Your task to perform on an android device: change timer sound Image 0: 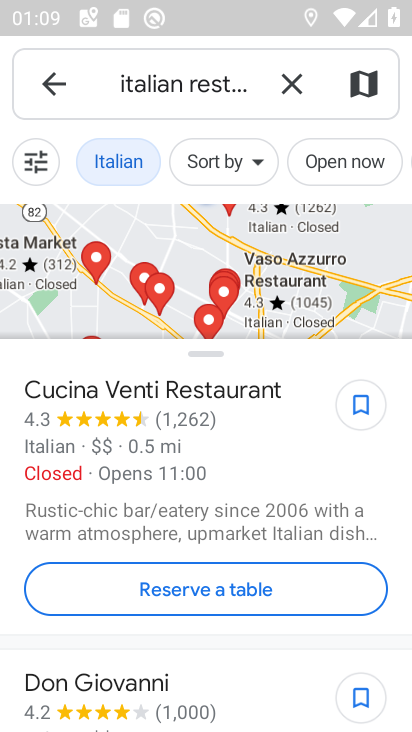
Step 0: press home button
Your task to perform on an android device: change timer sound Image 1: 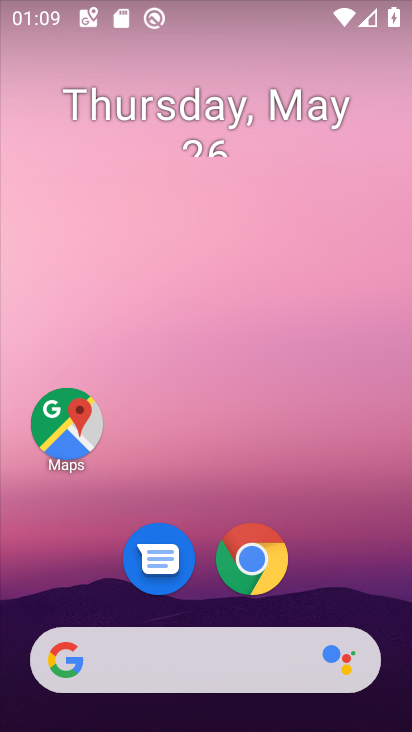
Step 1: drag from (333, 537) to (345, 154)
Your task to perform on an android device: change timer sound Image 2: 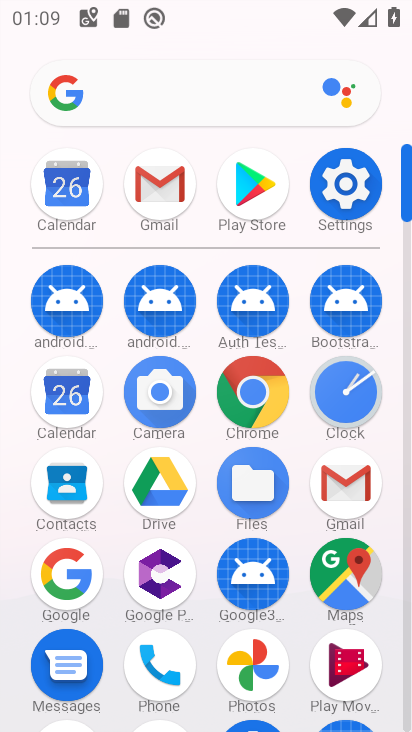
Step 2: click (361, 402)
Your task to perform on an android device: change timer sound Image 3: 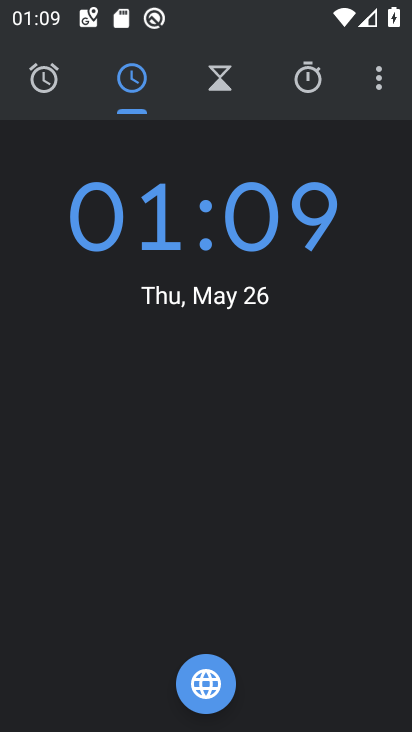
Step 3: click (381, 78)
Your task to perform on an android device: change timer sound Image 4: 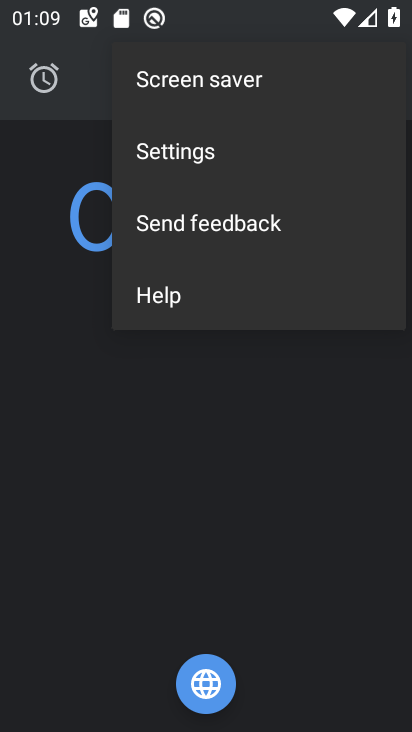
Step 4: click (221, 154)
Your task to perform on an android device: change timer sound Image 5: 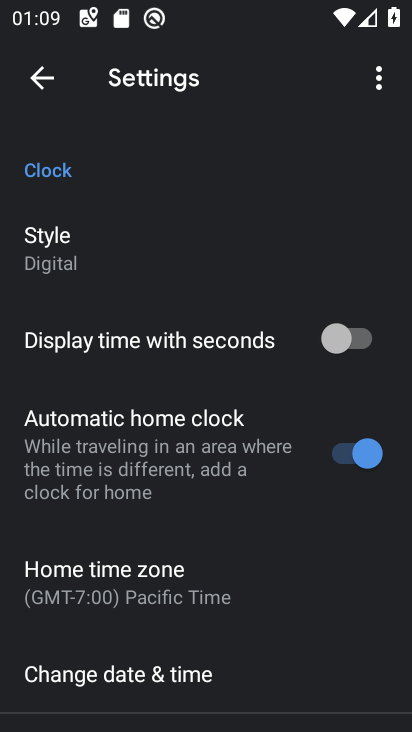
Step 5: drag from (312, 643) to (319, 241)
Your task to perform on an android device: change timer sound Image 6: 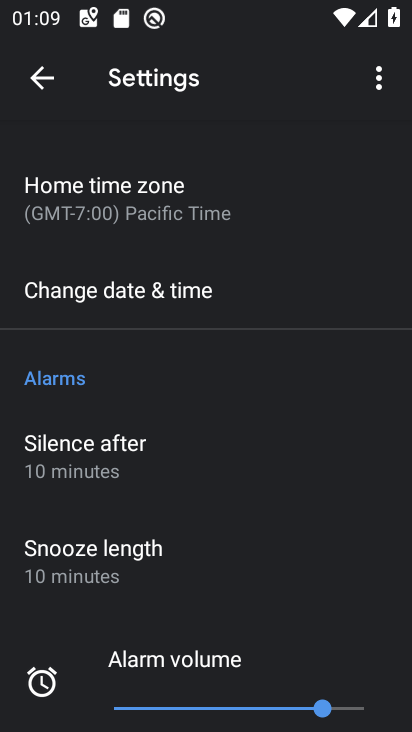
Step 6: drag from (311, 616) to (283, 202)
Your task to perform on an android device: change timer sound Image 7: 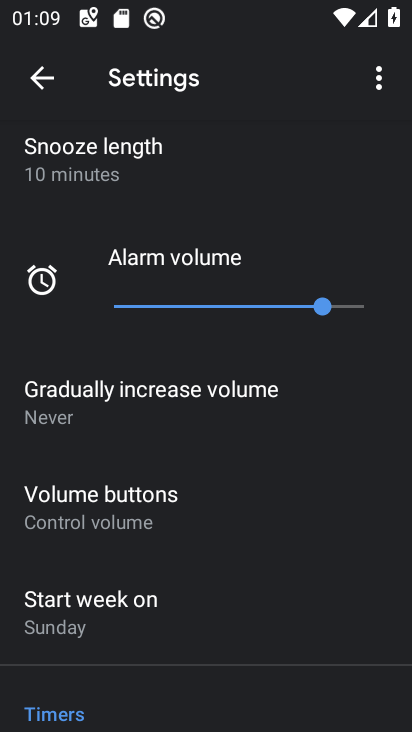
Step 7: drag from (309, 702) to (290, 433)
Your task to perform on an android device: change timer sound Image 8: 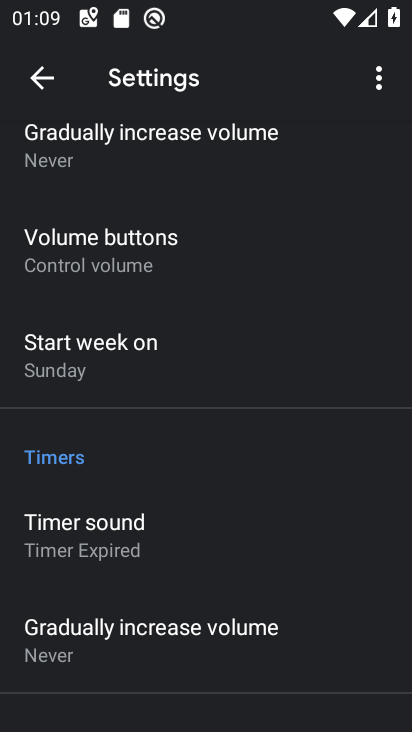
Step 8: click (243, 536)
Your task to perform on an android device: change timer sound Image 9: 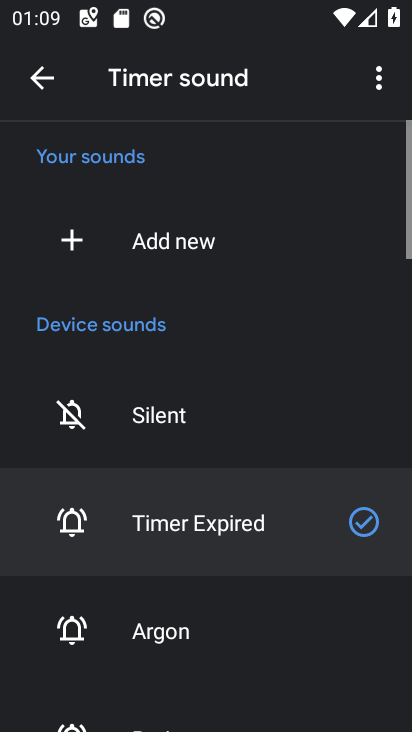
Step 9: click (221, 641)
Your task to perform on an android device: change timer sound Image 10: 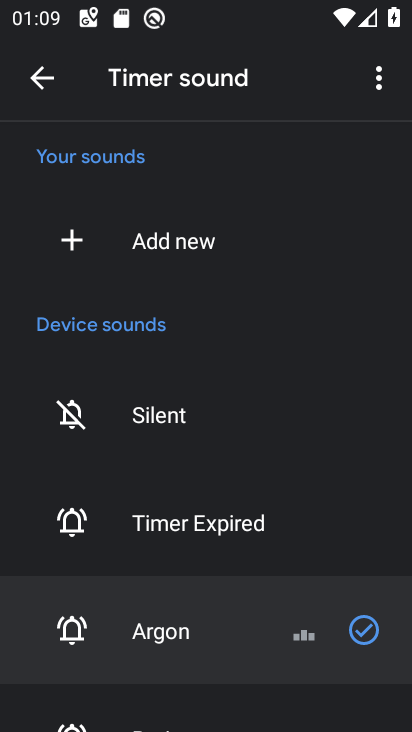
Step 10: task complete